Your task to perform on an android device: Search for seafood restaurants on Google Maps Image 0: 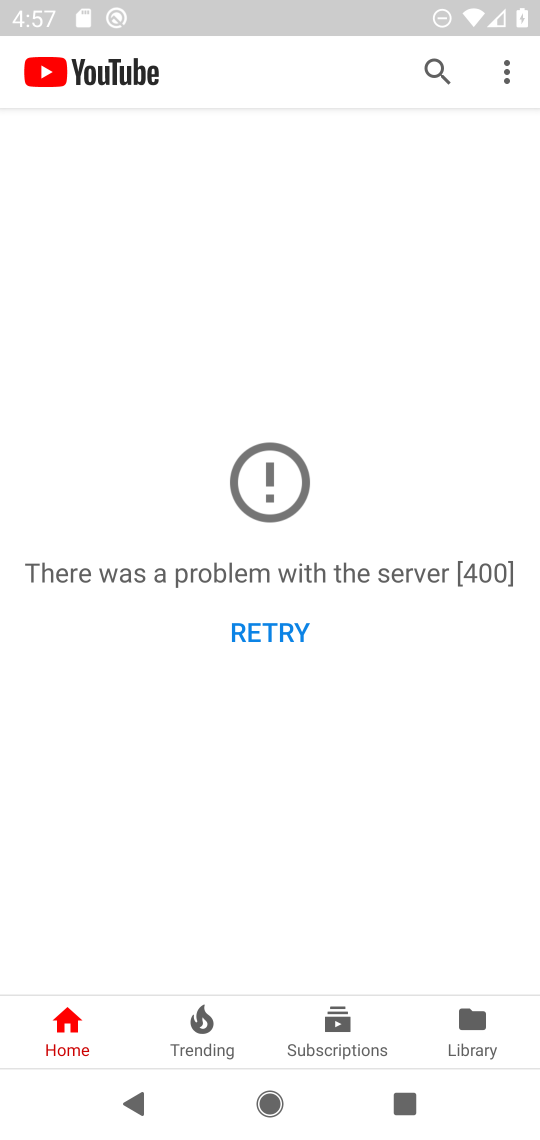
Step 0: press home button
Your task to perform on an android device: Search for seafood restaurants on Google Maps Image 1: 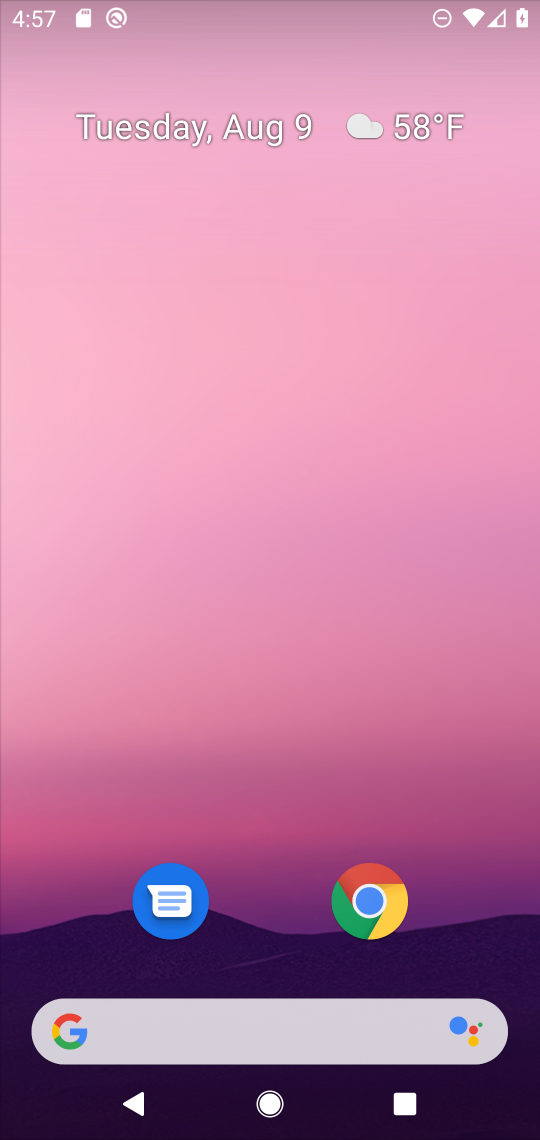
Step 1: drag from (509, 1135) to (532, 847)
Your task to perform on an android device: Search for seafood restaurants on Google Maps Image 2: 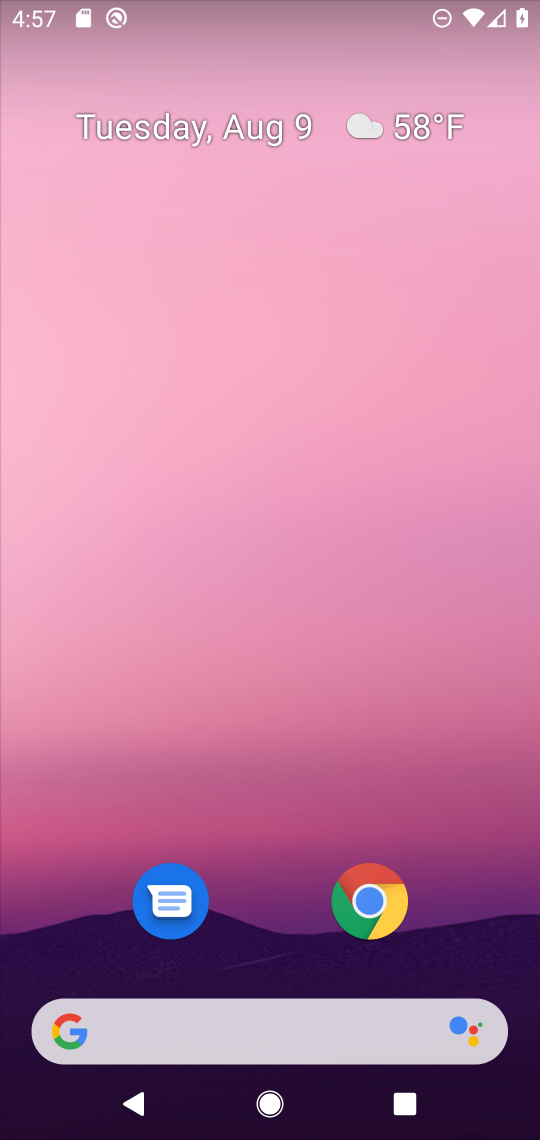
Step 2: drag from (301, 902) to (354, 126)
Your task to perform on an android device: Search for seafood restaurants on Google Maps Image 3: 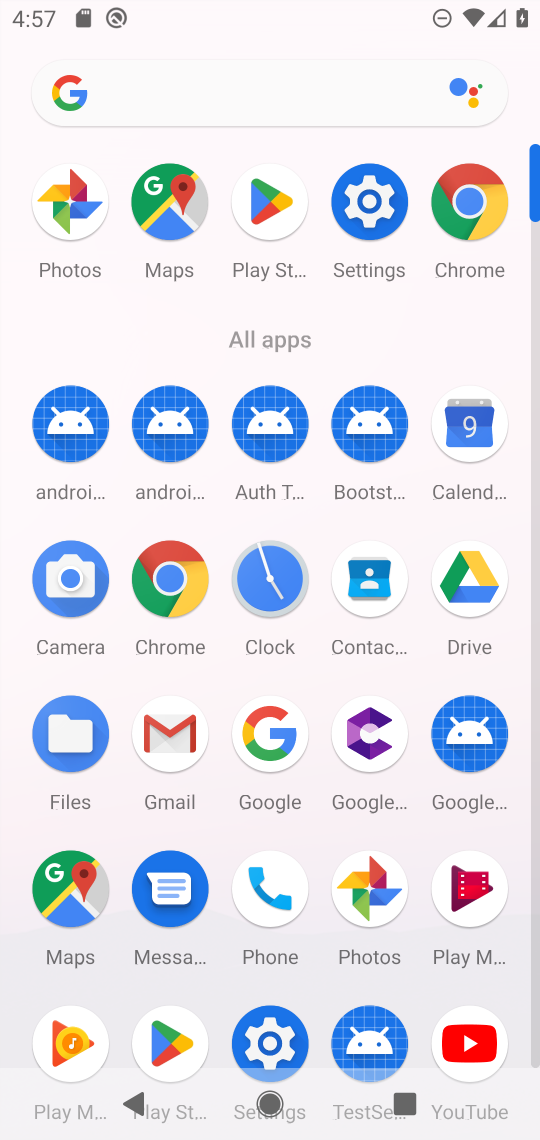
Step 3: click (167, 254)
Your task to perform on an android device: Search for seafood restaurants on Google Maps Image 4: 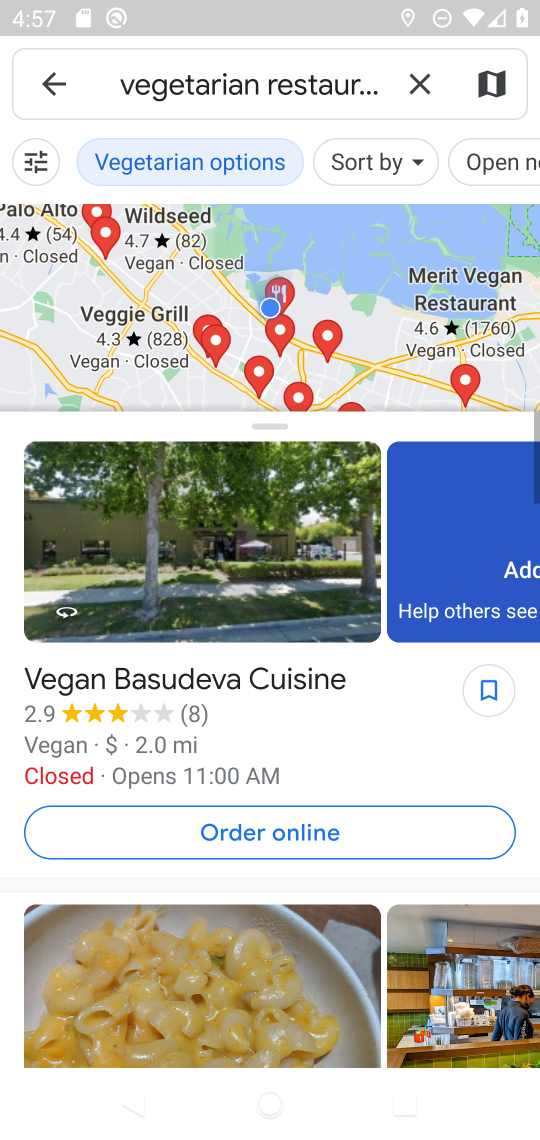
Step 4: click (424, 70)
Your task to perform on an android device: Search for seafood restaurants on Google Maps Image 5: 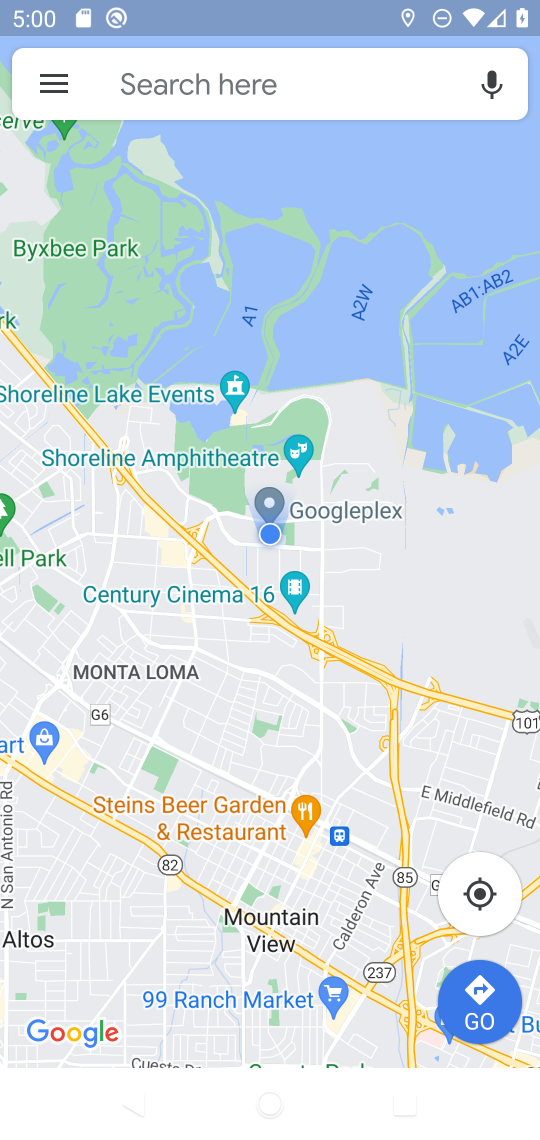
Step 5: click (207, 87)
Your task to perform on an android device: Search for seafood restaurants on Google Maps Image 6: 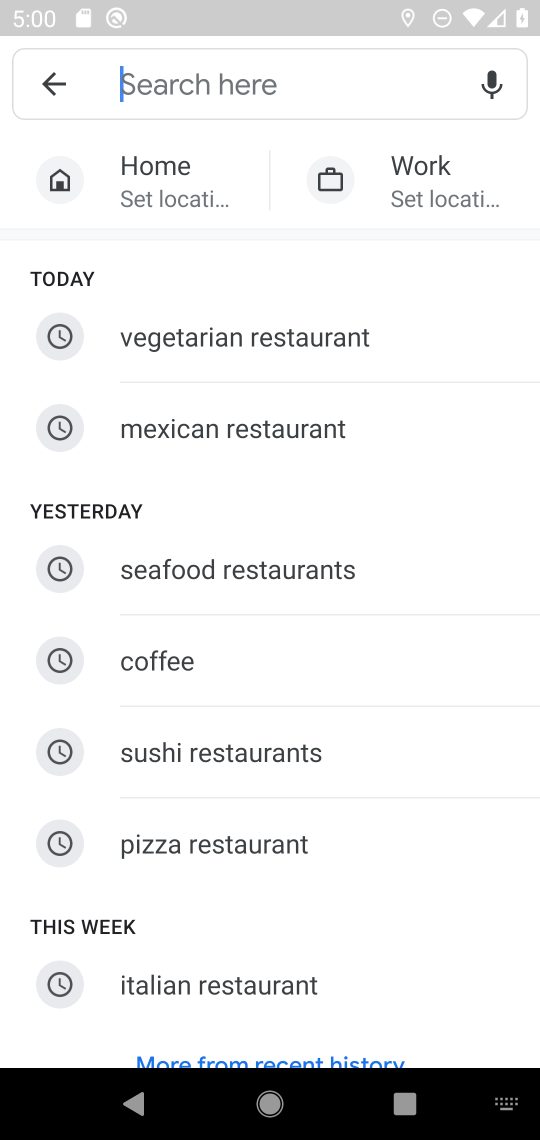
Step 6: type "seafood restaurants"
Your task to perform on an android device: Search for seafood restaurants on Google Maps Image 7: 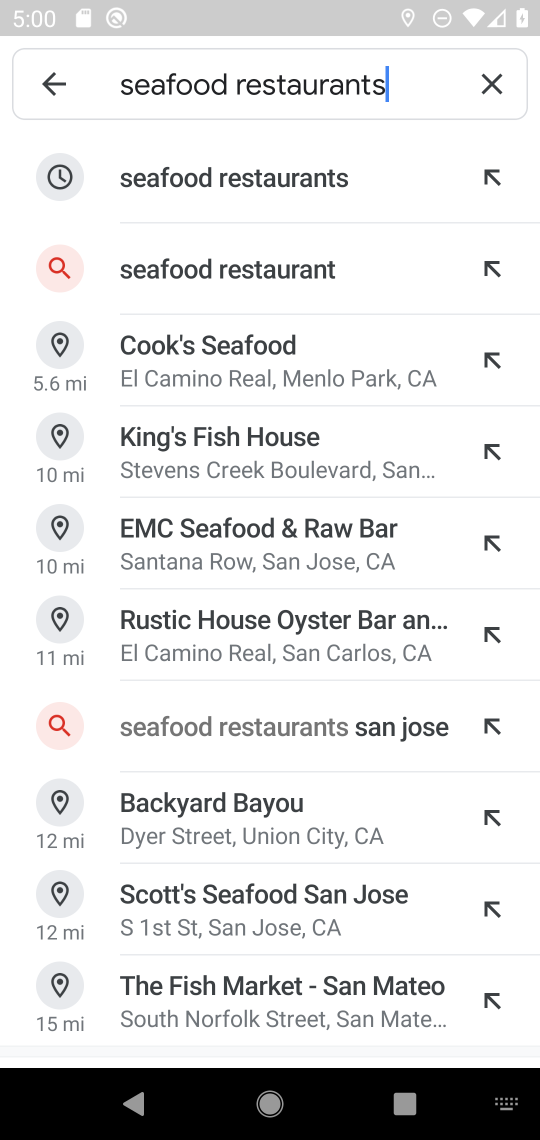
Step 7: click (274, 186)
Your task to perform on an android device: Search for seafood restaurants on Google Maps Image 8: 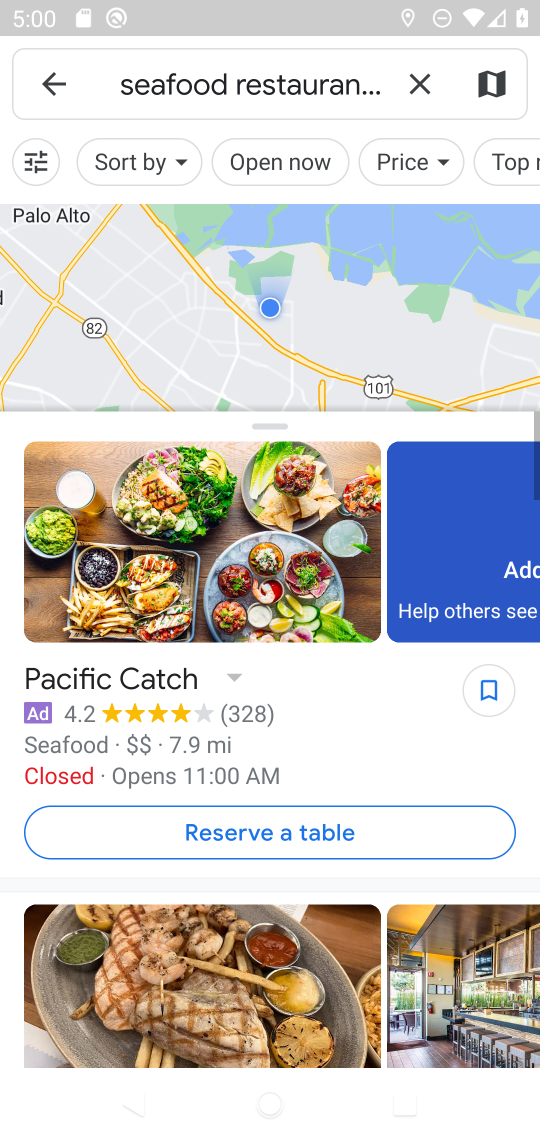
Step 8: task complete